Your task to perform on an android device: Search for Italian restaurants on Maps Image 0: 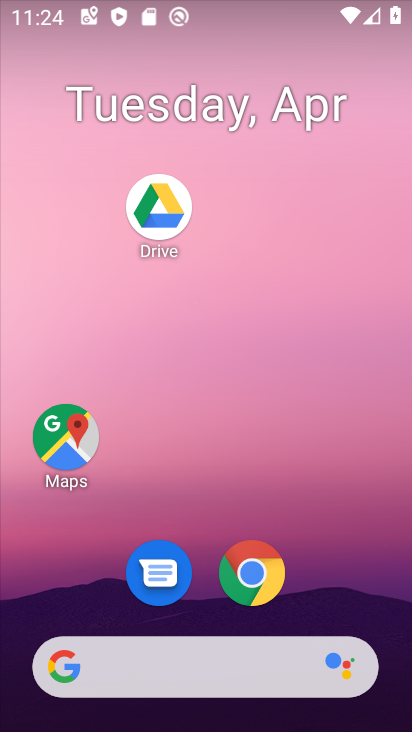
Step 0: drag from (350, 579) to (347, 221)
Your task to perform on an android device: Search for Italian restaurants on Maps Image 1: 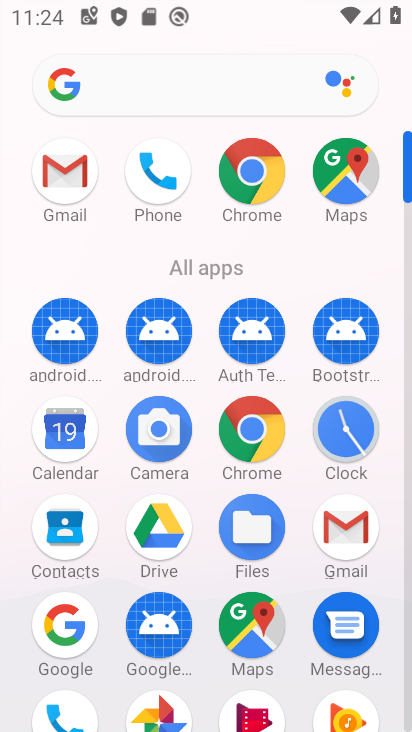
Step 1: drag from (391, 520) to (396, 268)
Your task to perform on an android device: Search for Italian restaurants on Maps Image 2: 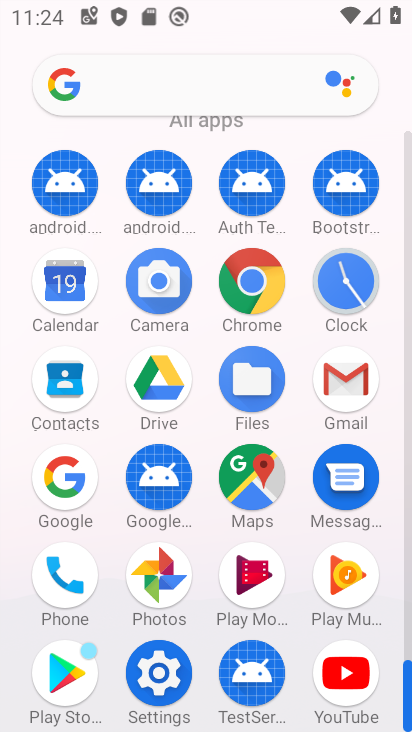
Step 2: click (258, 479)
Your task to perform on an android device: Search for Italian restaurants on Maps Image 3: 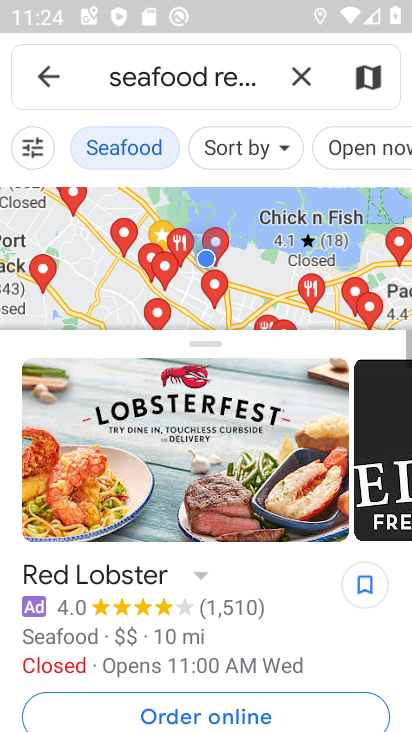
Step 3: click (270, 76)
Your task to perform on an android device: Search for Italian restaurants on Maps Image 4: 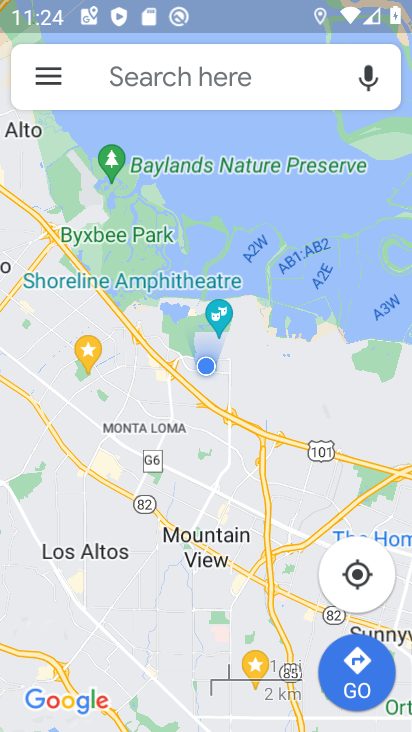
Step 4: click (275, 74)
Your task to perform on an android device: Search for Italian restaurants on Maps Image 5: 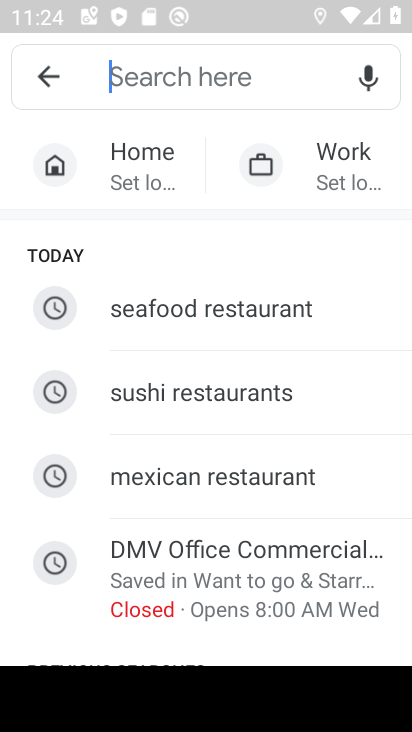
Step 5: type "italian restaurants"
Your task to perform on an android device: Search for Italian restaurants on Maps Image 6: 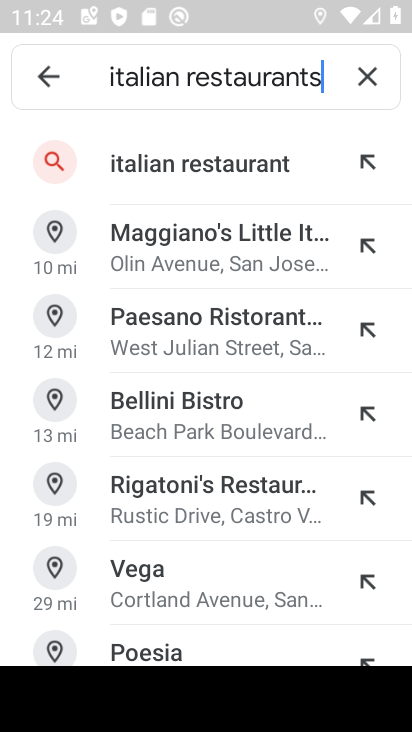
Step 6: click (237, 155)
Your task to perform on an android device: Search for Italian restaurants on Maps Image 7: 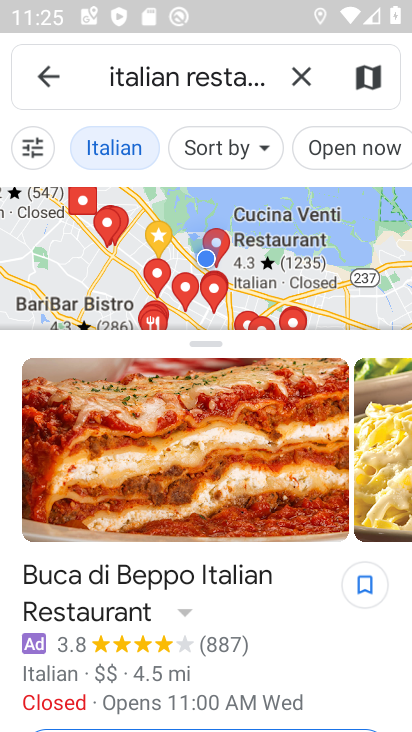
Step 7: task complete